Your task to perform on an android device: What is the recent news? Image 0: 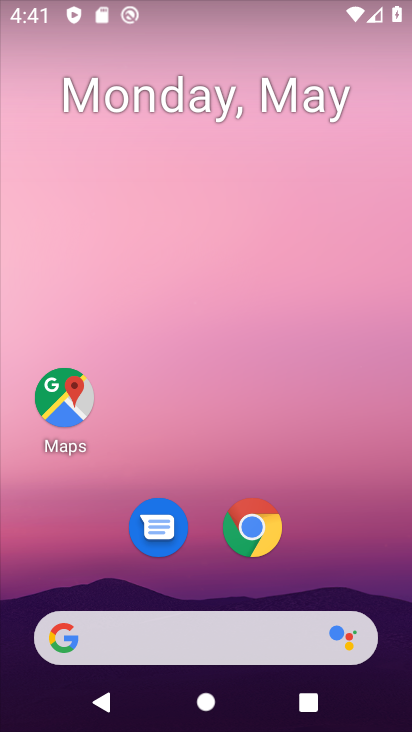
Step 0: drag from (377, 450) to (366, 262)
Your task to perform on an android device: What is the recent news? Image 1: 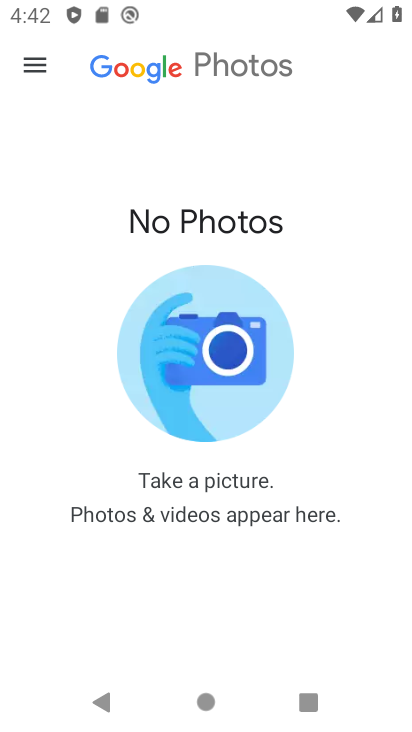
Step 1: task complete